Your task to perform on an android device: Open eBay Image 0: 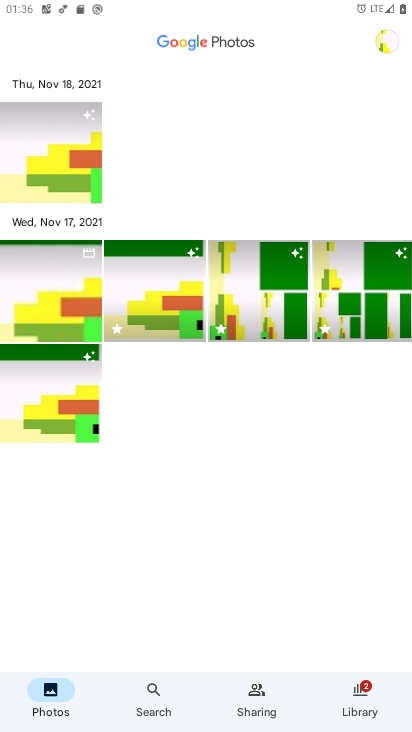
Step 0: press home button
Your task to perform on an android device: Open eBay Image 1: 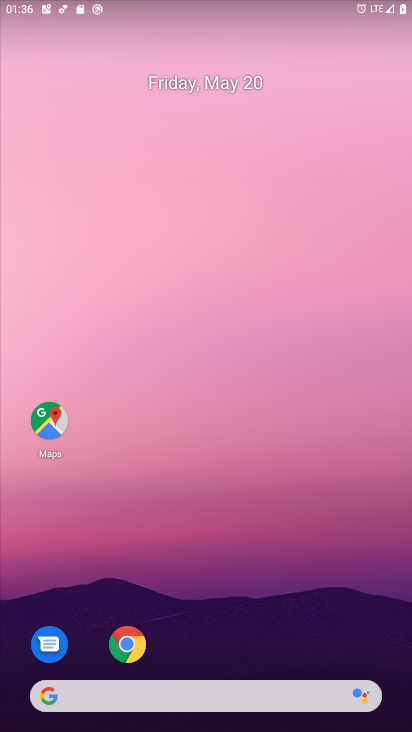
Step 1: drag from (177, 681) to (201, 326)
Your task to perform on an android device: Open eBay Image 2: 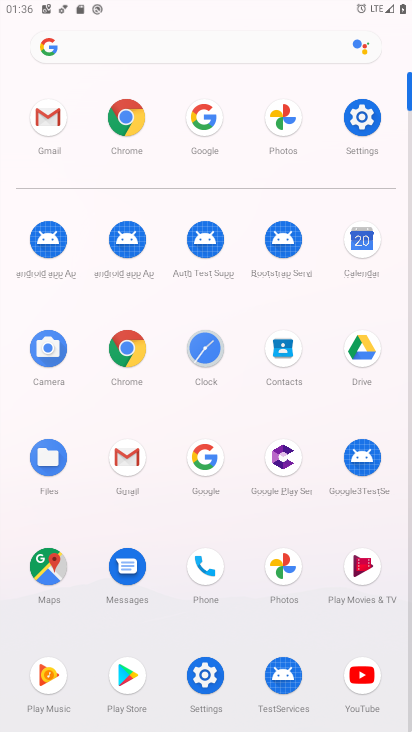
Step 2: click (200, 120)
Your task to perform on an android device: Open eBay Image 3: 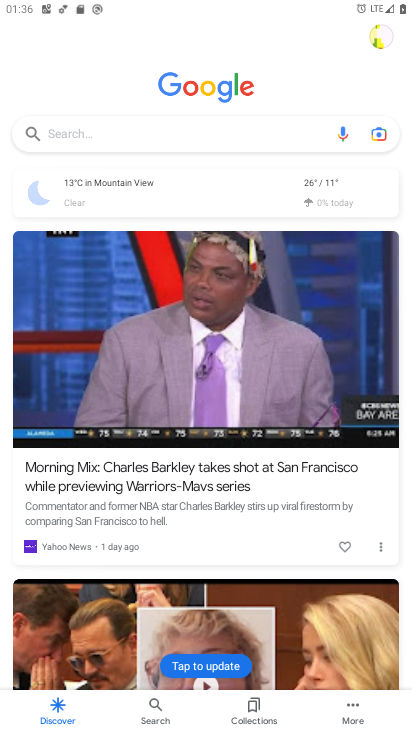
Step 3: click (196, 136)
Your task to perform on an android device: Open eBay Image 4: 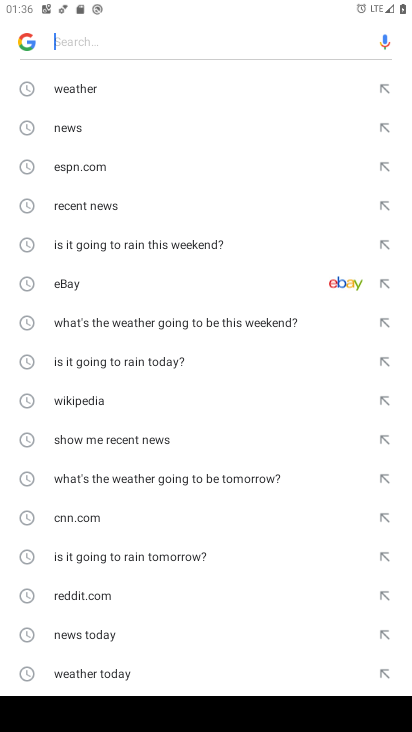
Step 4: click (346, 283)
Your task to perform on an android device: Open eBay Image 5: 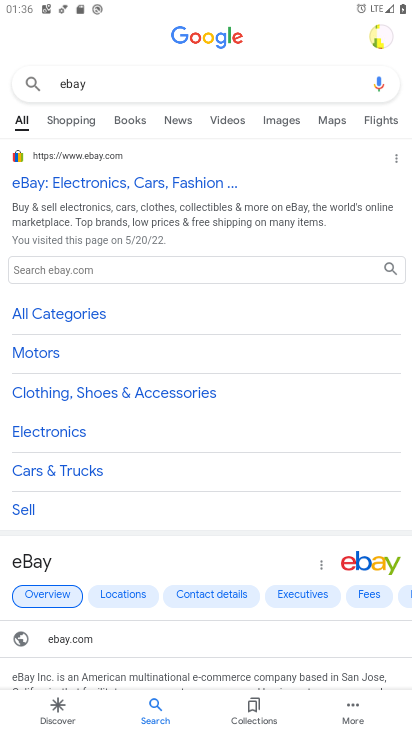
Step 5: drag from (167, 642) to (213, 256)
Your task to perform on an android device: Open eBay Image 6: 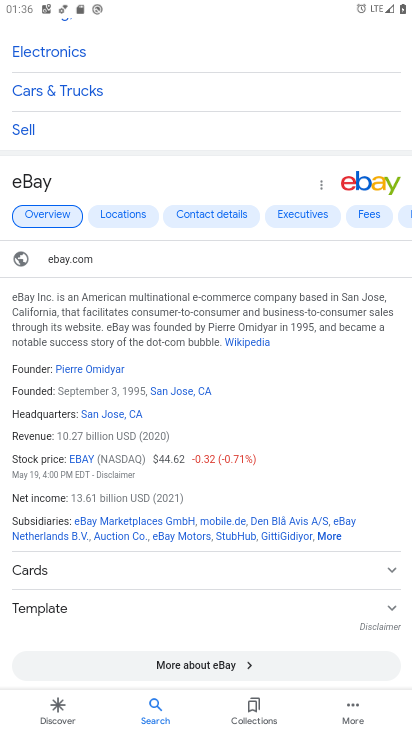
Step 6: drag from (183, 575) to (218, 335)
Your task to perform on an android device: Open eBay Image 7: 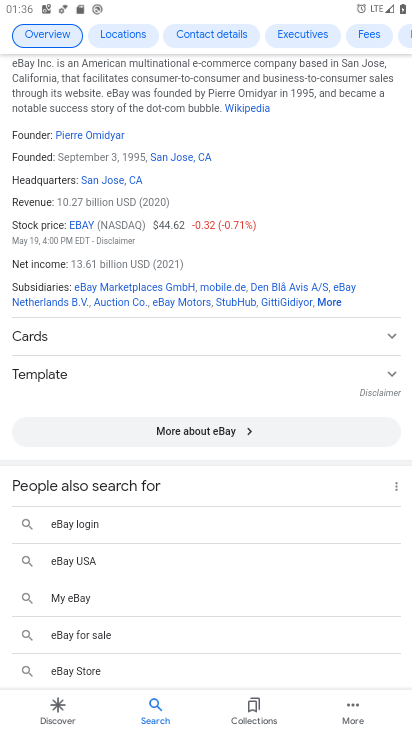
Step 7: drag from (177, 84) to (181, 424)
Your task to perform on an android device: Open eBay Image 8: 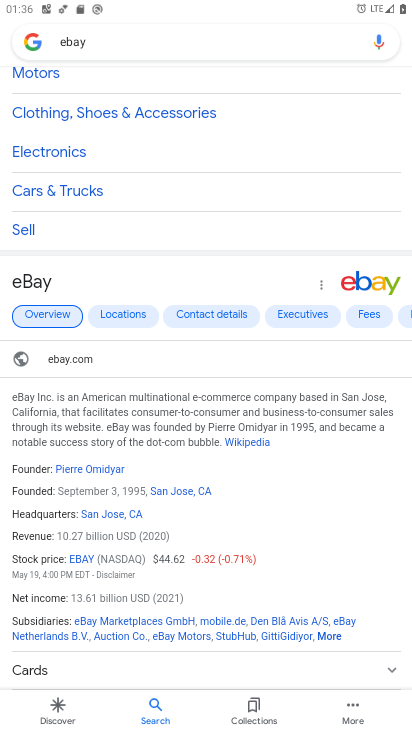
Step 8: drag from (143, 96) to (175, 502)
Your task to perform on an android device: Open eBay Image 9: 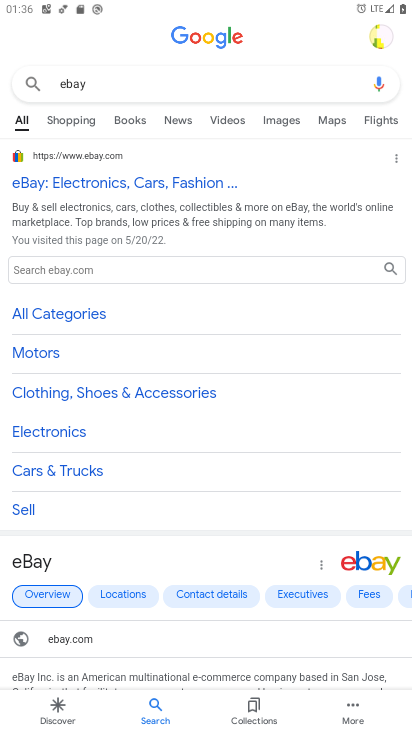
Step 9: click (73, 189)
Your task to perform on an android device: Open eBay Image 10: 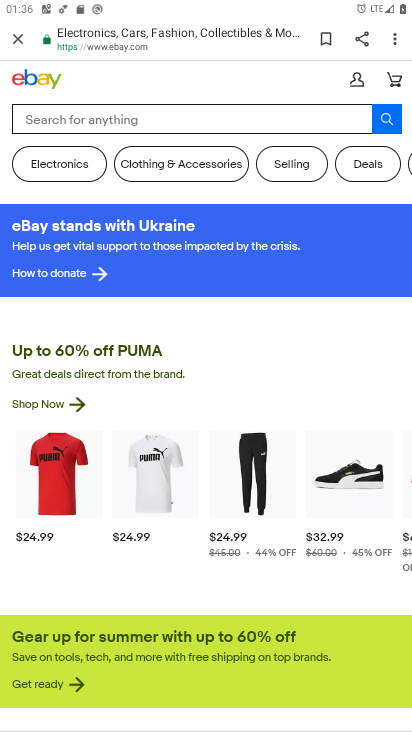
Step 10: task complete